Your task to perform on an android device: Open the phone app and click the voicemail tab. Image 0: 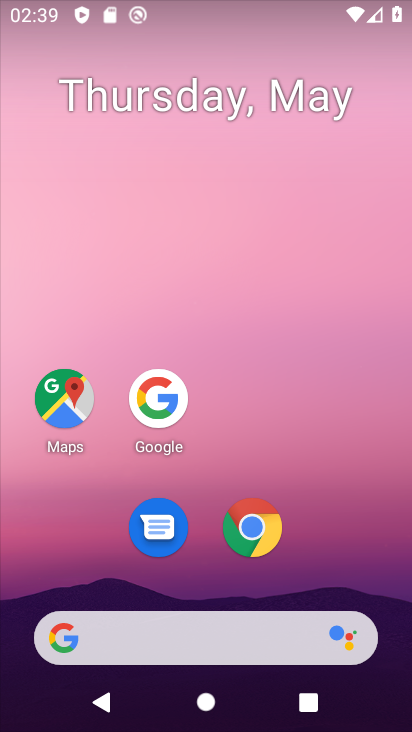
Step 0: drag from (229, 595) to (280, 193)
Your task to perform on an android device: Open the phone app and click the voicemail tab. Image 1: 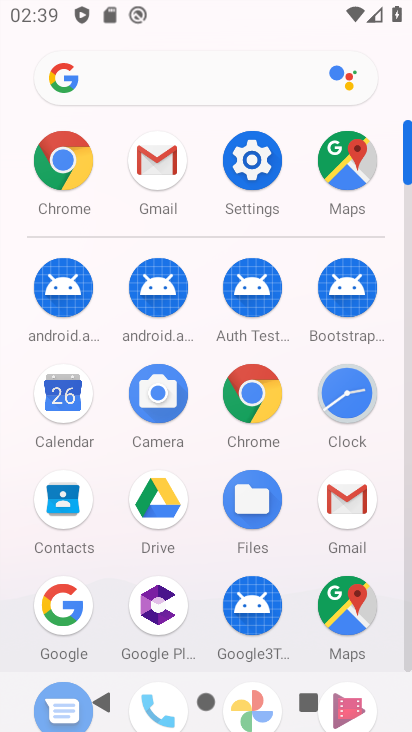
Step 1: drag from (190, 548) to (188, 290)
Your task to perform on an android device: Open the phone app and click the voicemail tab. Image 2: 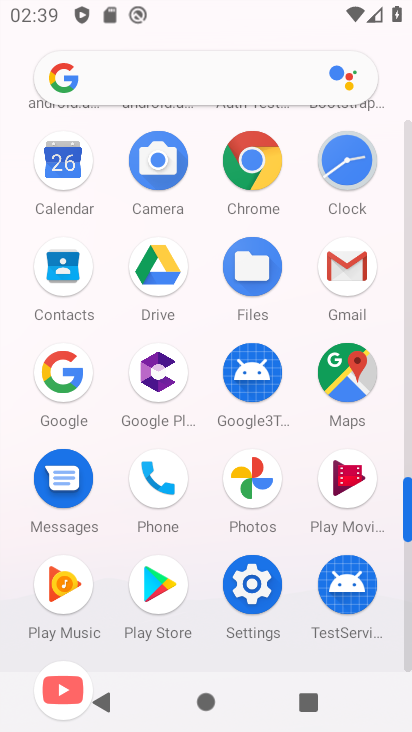
Step 2: click (154, 480)
Your task to perform on an android device: Open the phone app and click the voicemail tab. Image 3: 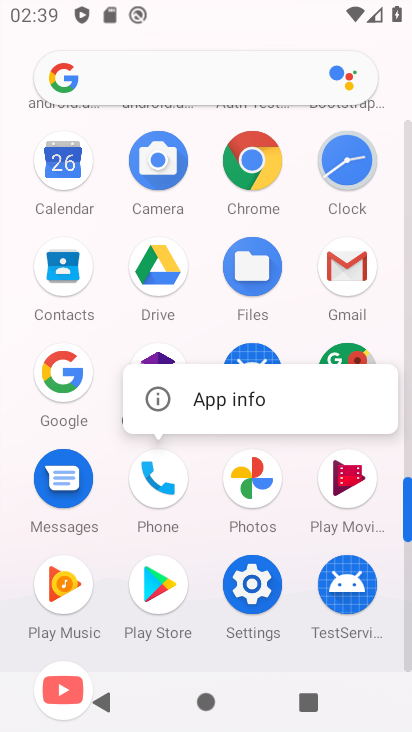
Step 3: click (193, 421)
Your task to perform on an android device: Open the phone app and click the voicemail tab. Image 4: 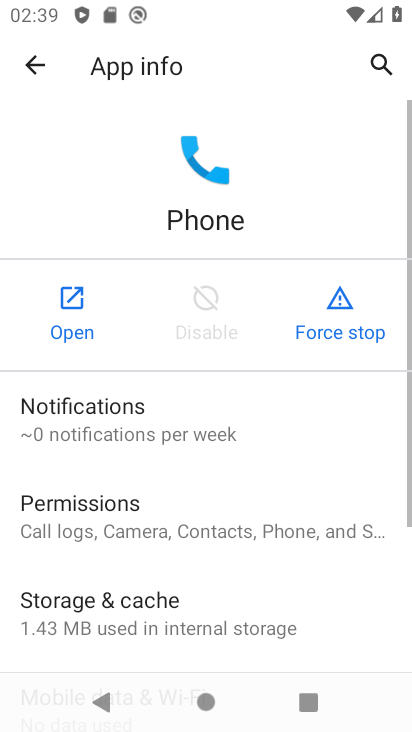
Step 4: click (69, 319)
Your task to perform on an android device: Open the phone app and click the voicemail tab. Image 5: 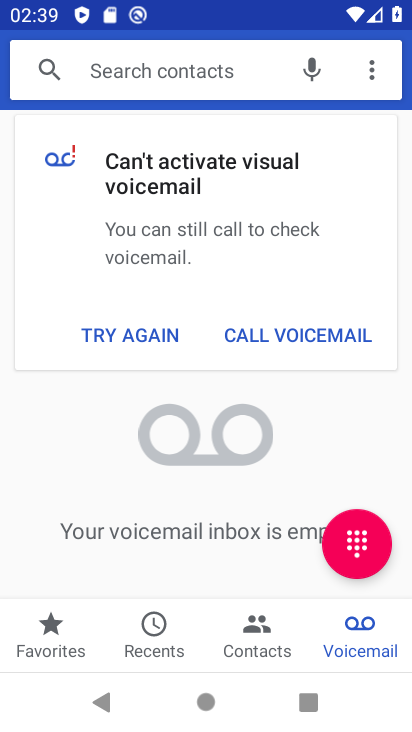
Step 5: click (360, 622)
Your task to perform on an android device: Open the phone app and click the voicemail tab. Image 6: 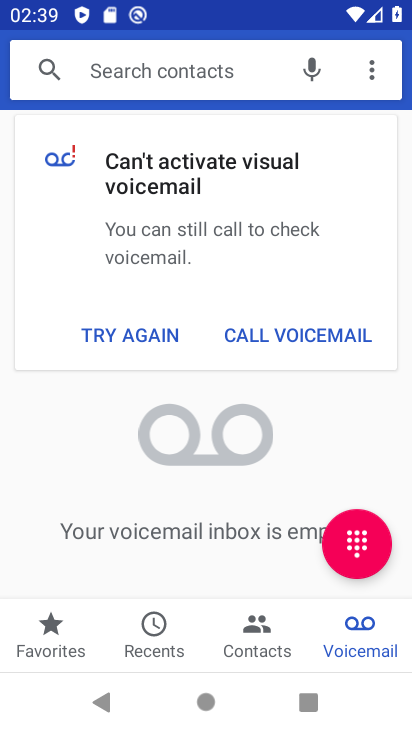
Step 6: task complete